Your task to perform on an android device: Turn off the flashlight Image 0: 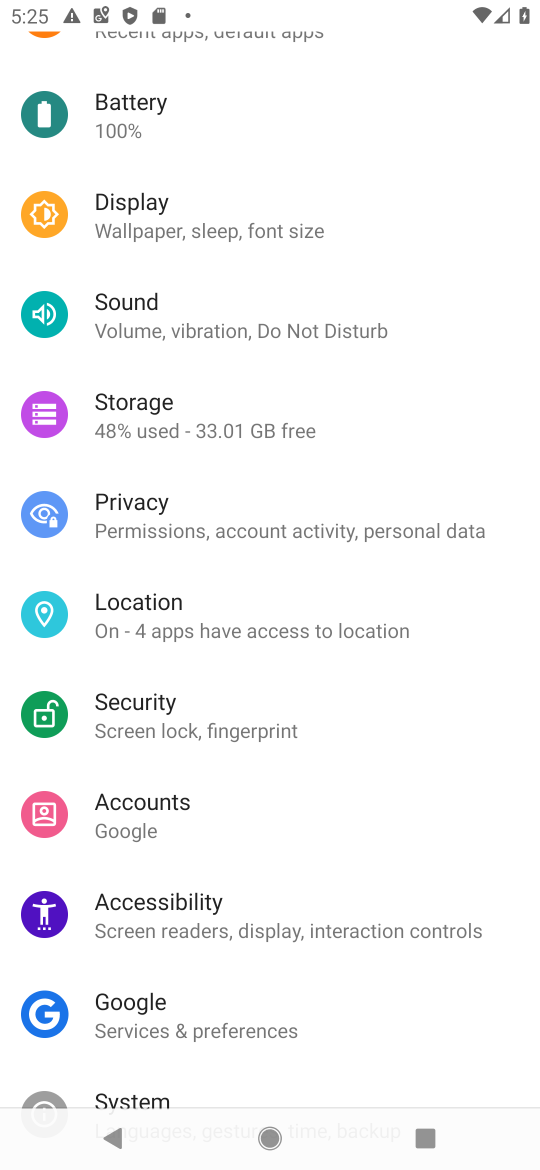
Step 0: press home button
Your task to perform on an android device: Turn off the flashlight Image 1: 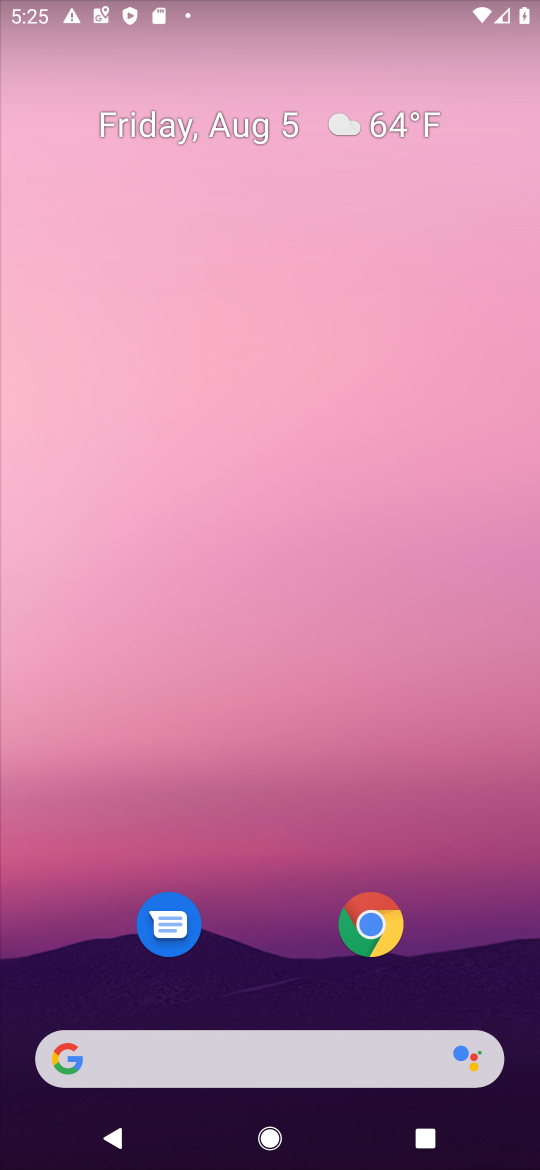
Step 1: task complete